Your task to perform on an android device: turn on the 12-hour format for clock Image 0: 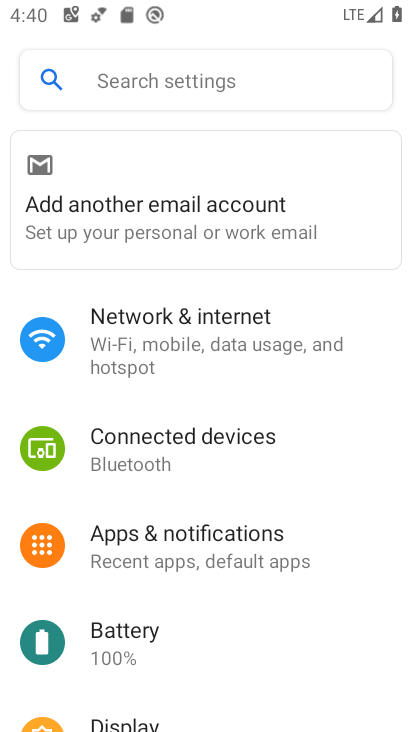
Step 0: press back button
Your task to perform on an android device: turn on the 12-hour format for clock Image 1: 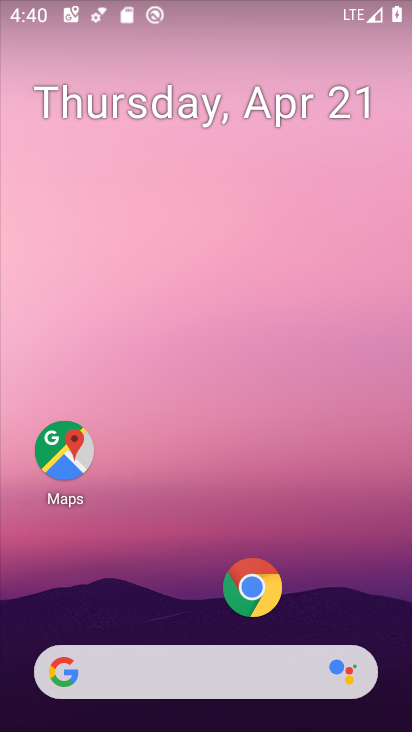
Step 1: drag from (129, 642) to (202, 137)
Your task to perform on an android device: turn on the 12-hour format for clock Image 2: 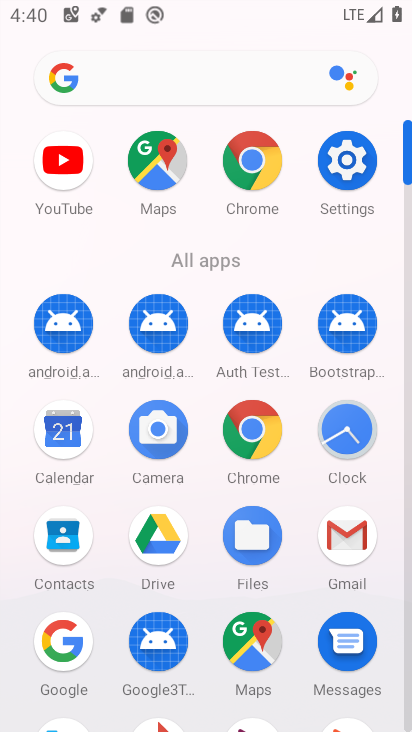
Step 2: click (351, 430)
Your task to perform on an android device: turn on the 12-hour format for clock Image 3: 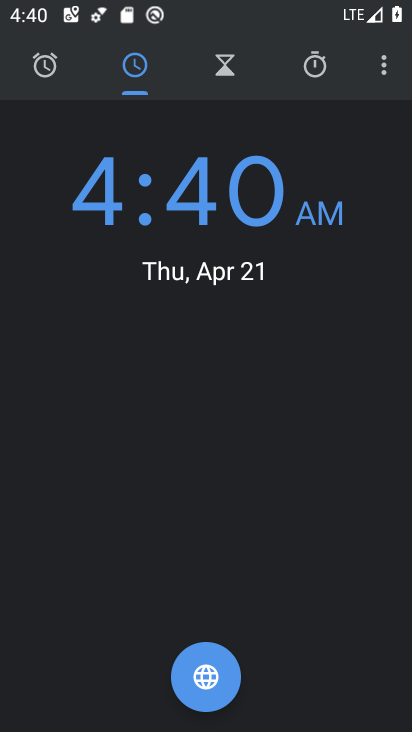
Step 3: click (391, 76)
Your task to perform on an android device: turn on the 12-hour format for clock Image 4: 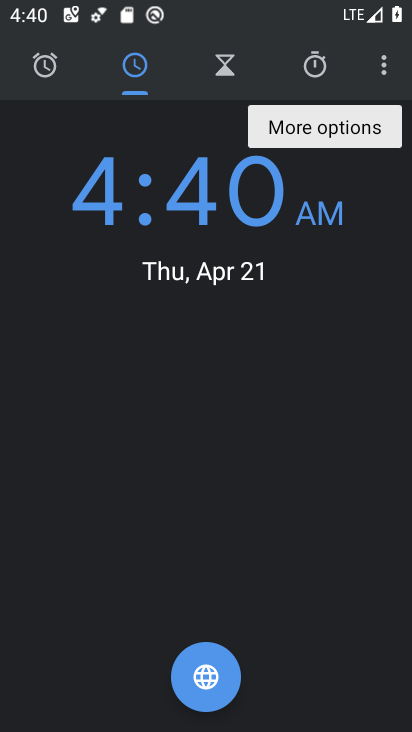
Step 4: click (387, 70)
Your task to perform on an android device: turn on the 12-hour format for clock Image 5: 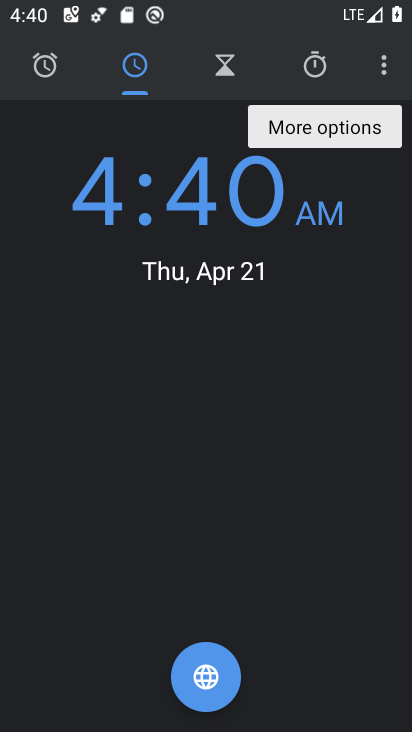
Step 5: click (382, 62)
Your task to perform on an android device: turn on the 12-hour format for clock Image 6: 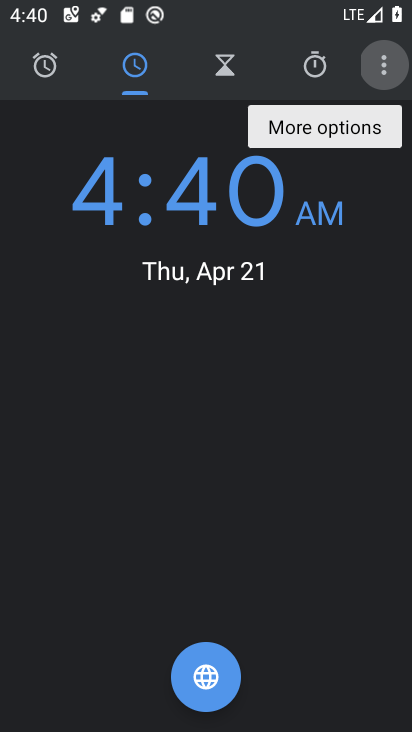
Step 6: click (376, 123)
Your task to perform on an android device: turn on the 12-hour format for clock Image 7: 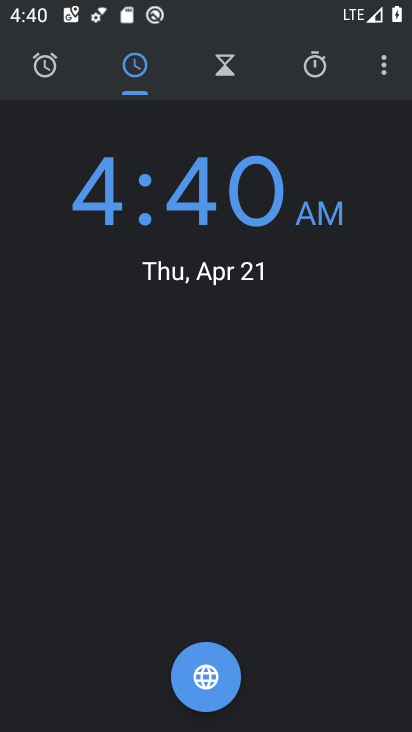
Step 7: click (385, 72)
Your task to perform on an android device: turn on the 12-hour format for clock Image 8: 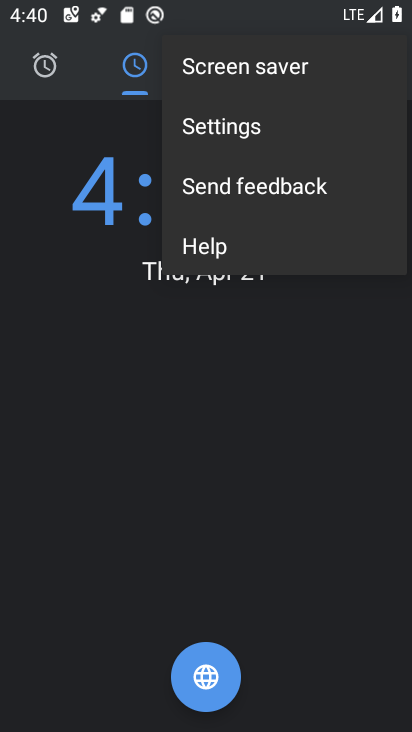
Step 8: click (290, 126)
Your task to perform on an android device: turn on the 12-hour format for clock Image 9: 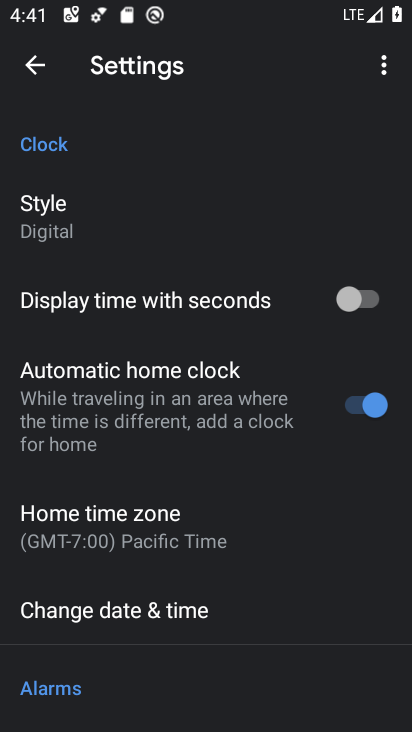
Step 9: drag from (176, 668) to (292, 81)
Your task to perform on an android device: turn on the 12-hour format for clock Image 10: 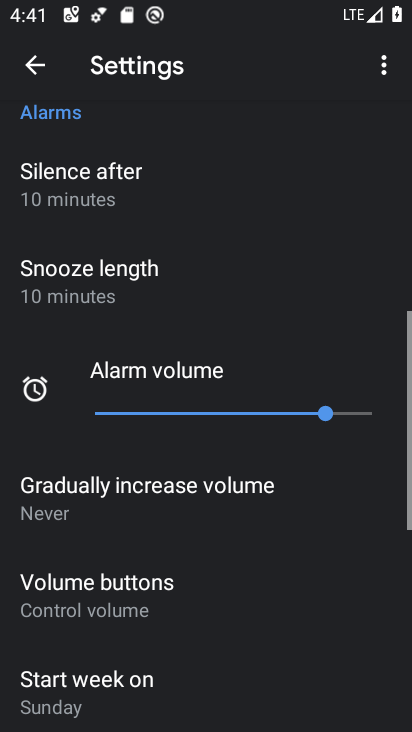
Step 10: drag from (199, 597) to (330, 101)
Your task to perform on an android device: turn on the 12-hour format for clock Image 11: 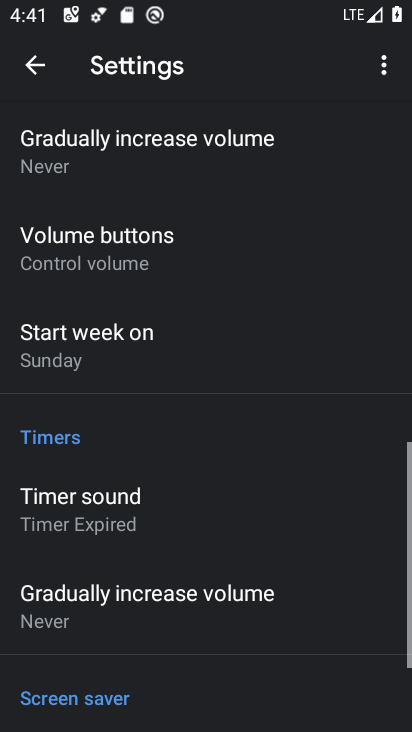
Step 11: drag from (276, 667) to (387, 220)
Your task to perform on an android device: turn on the 12-hour format for clock Image 12: 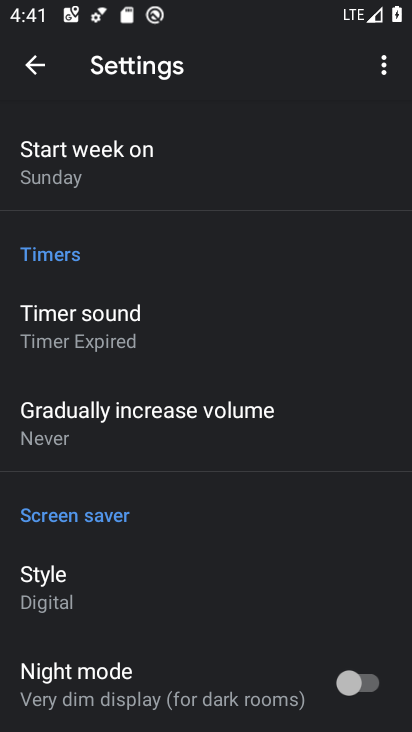
Step 12: drag from (229, 230) to (127, 666)
Your task to perform on an android device: turn on the 12-hour format for clock Image 13: 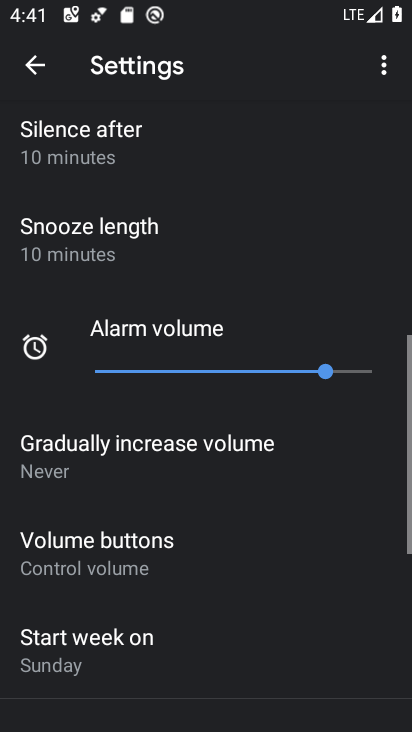
Step 13: drag from (174, 202) to (132, 594)
Your task to perform on an android device: turn on the 12-hour format for clock Image 14: 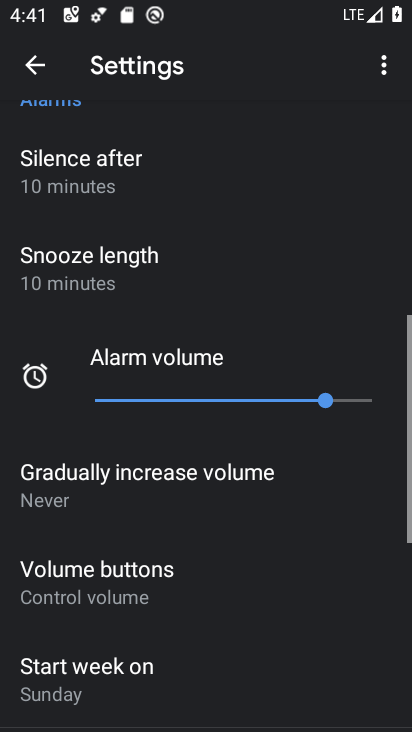
Step 14: drag from (213, 212) to (124, 582)
Your task to perform on an android device: turn on the 12-hour format for clock Image 15: 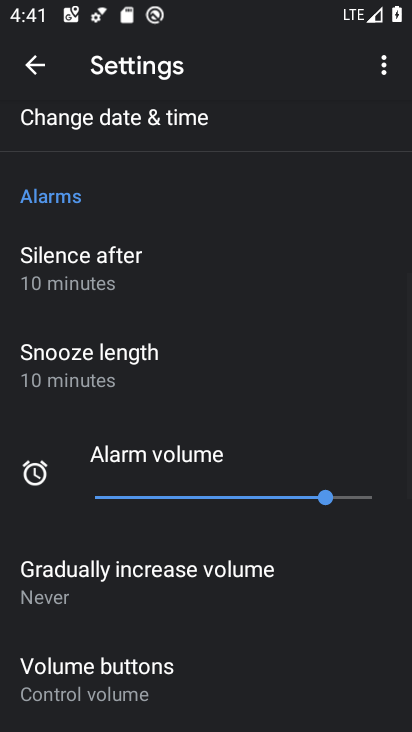
Step 15: click (199, 136)
Your task to perform on an android device: turn on the 12-hour format for clock Image 16: 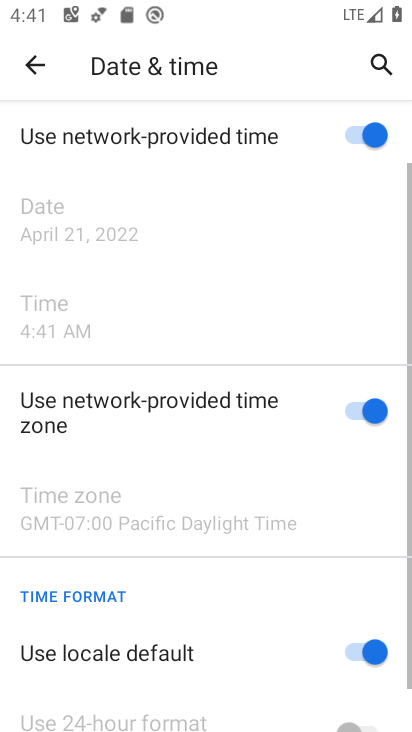
Step 16: task complete